Your task to perform on an android device: open app "YouTube Kids" (install if not already installed) Image 0: 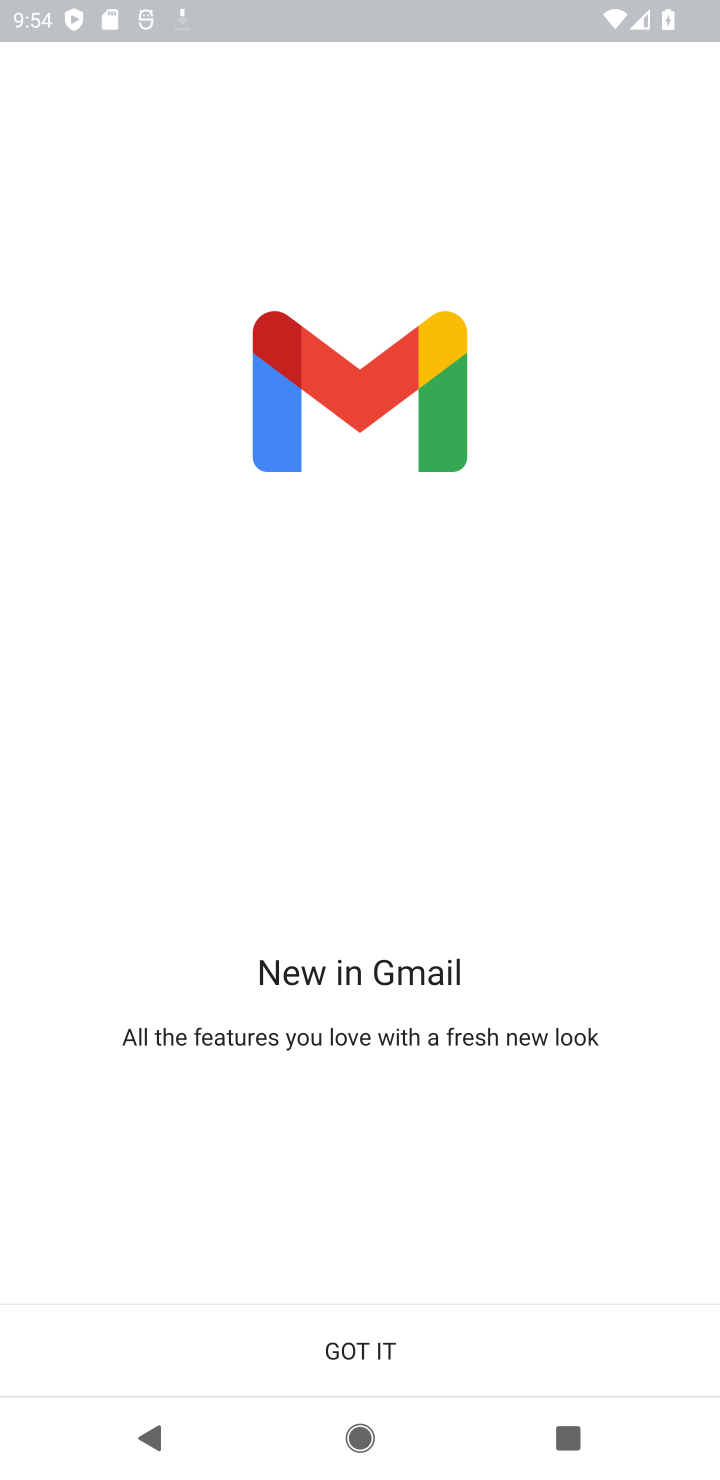
Step 0: press home button
Your task to perform on an android device: open app "YouTube Kids" (install if not already installed) Image 1: 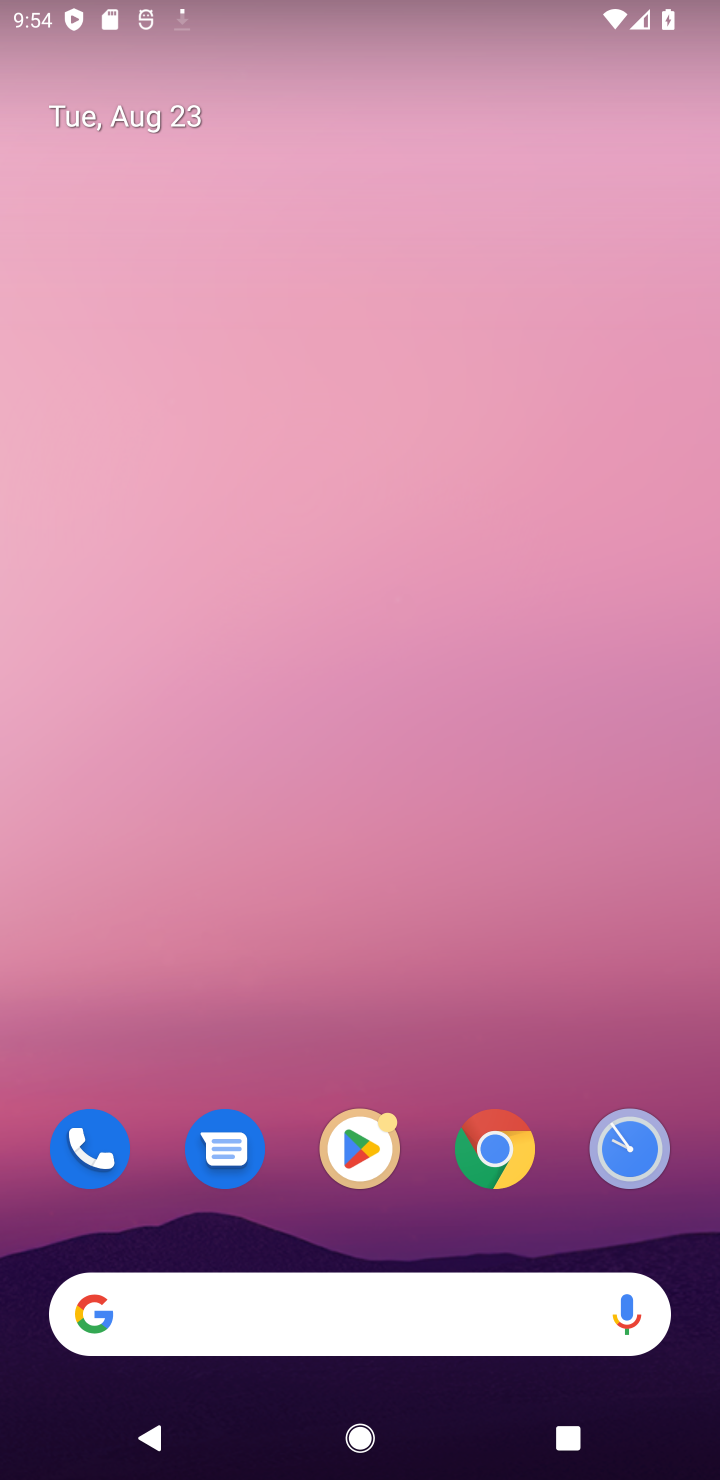
Step 1: click (356, 1143)
Your task to perform on an android device: open app "YouTube Kids" (install if not already installed) Image 2: 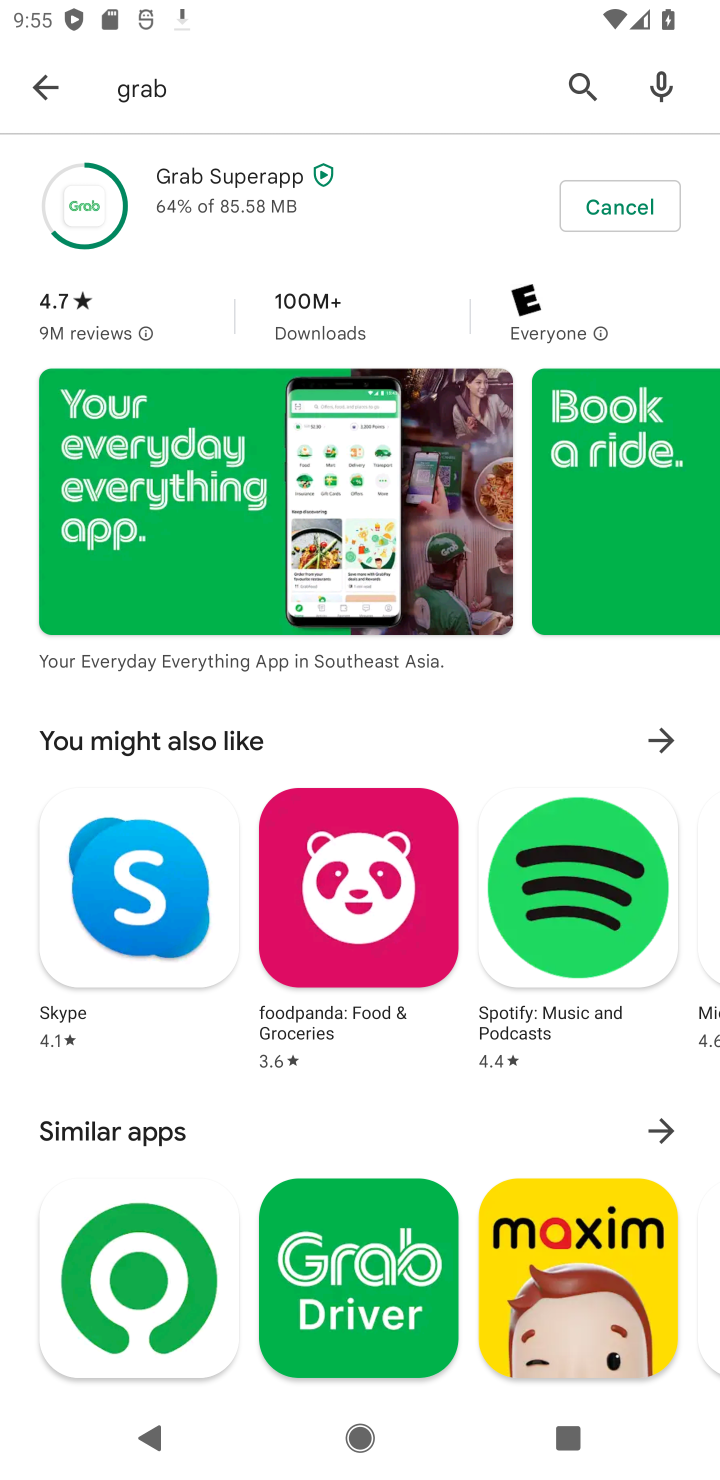
Step 2: click (559, 85)
Your task to perform on an android device: open app "YouTube Kids" (install if not already installed) Image 3: 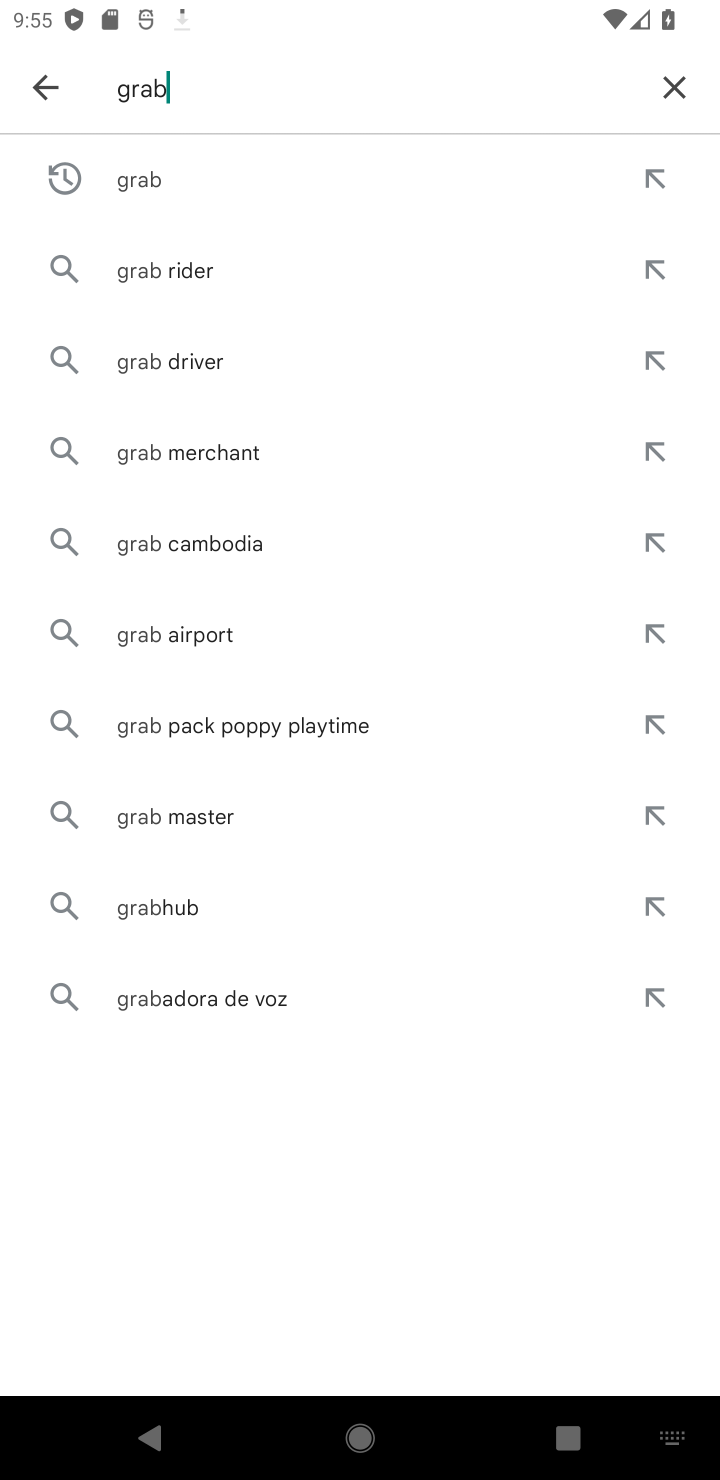
Step 3: click (651, 85)
Your task to perform on an android device: open app "YouTube Kids" (install if not already installed) Image 4: 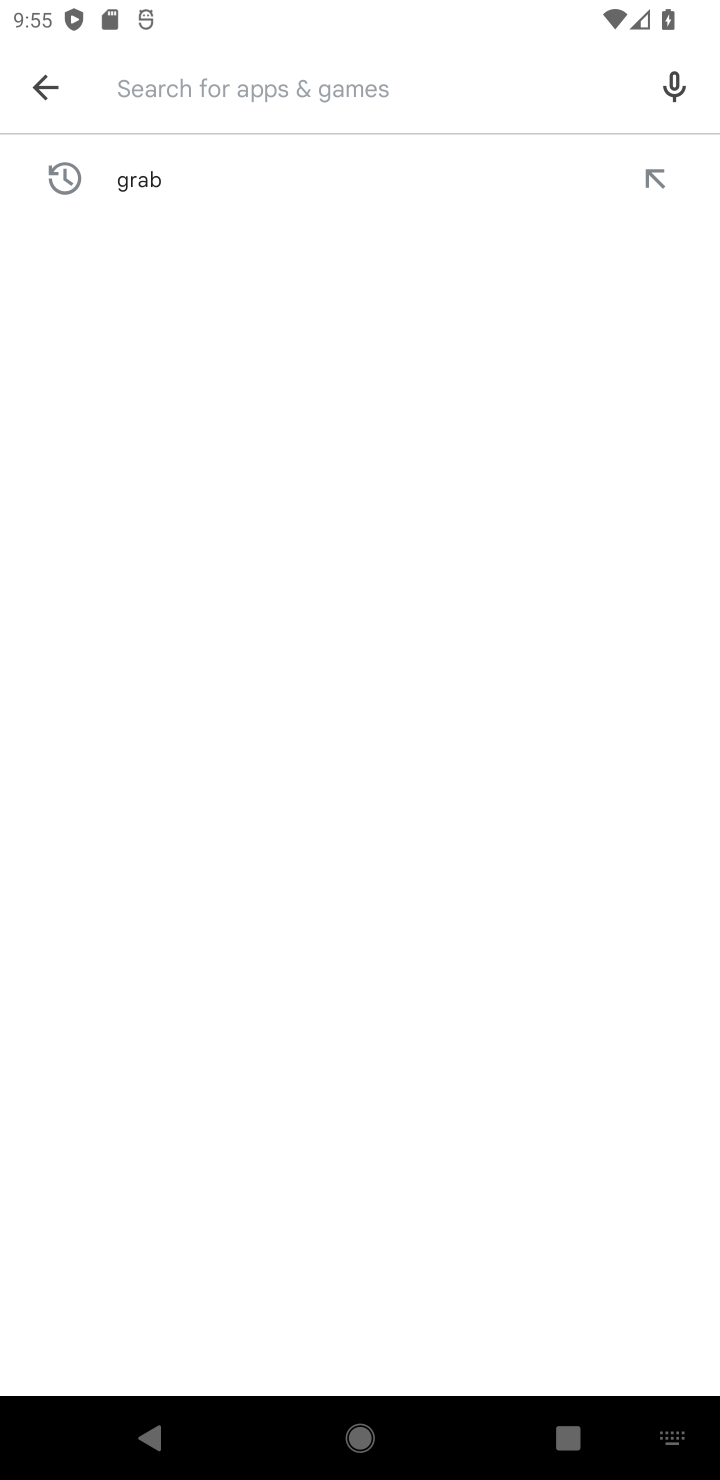
Step 4: type "youtube kid"
Your task to perform on an android device: open app "YouTube Kids" (install if not already installed) Image 5: 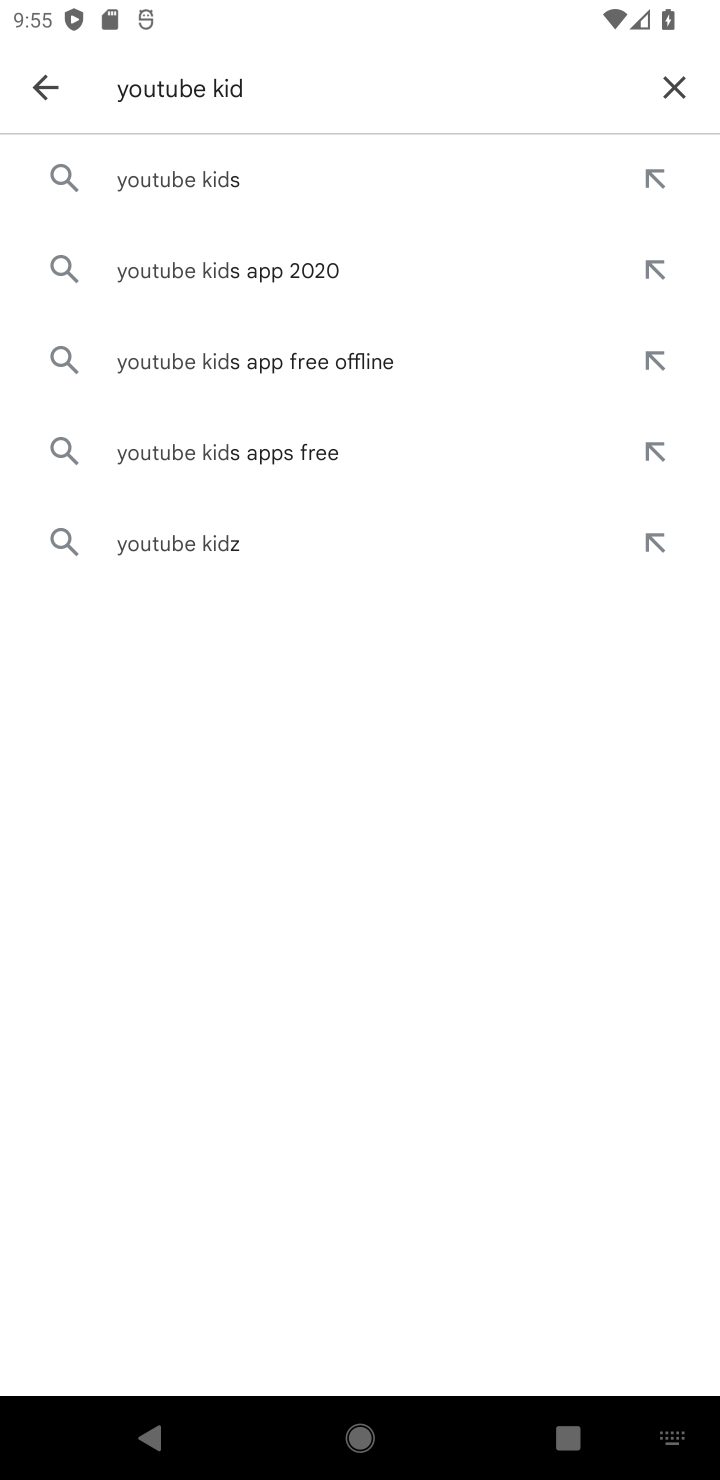
Step 5: click (157, 194)
Your task to perform on an android device: open app "YouTube Kids" (install if not already installed) Image 6: 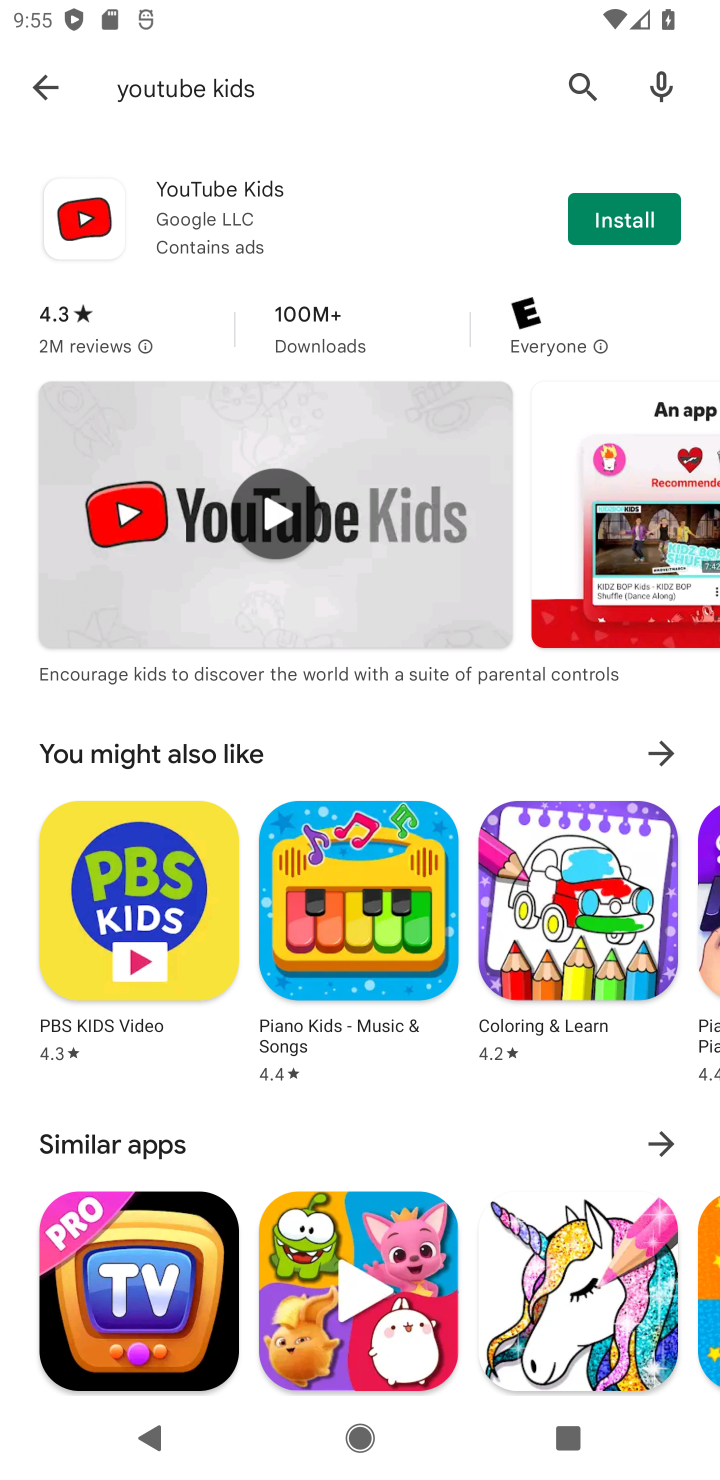
Step 6: click (608, 205)
Your task to perform on an android device: open app "YouTube Kids" (install if not already installed) Image 7: 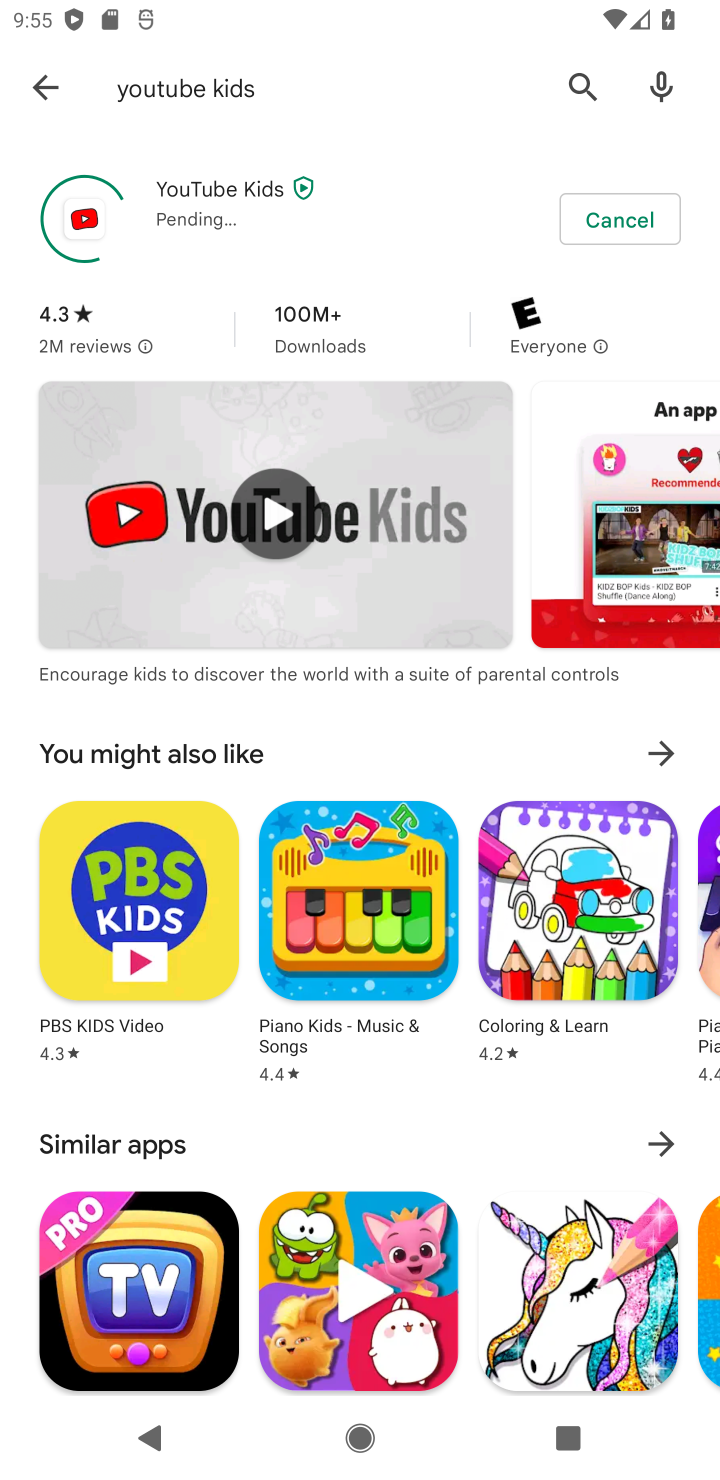
Step 7: task complete